Your task to perform on an android device: What is the news today? Image 0: 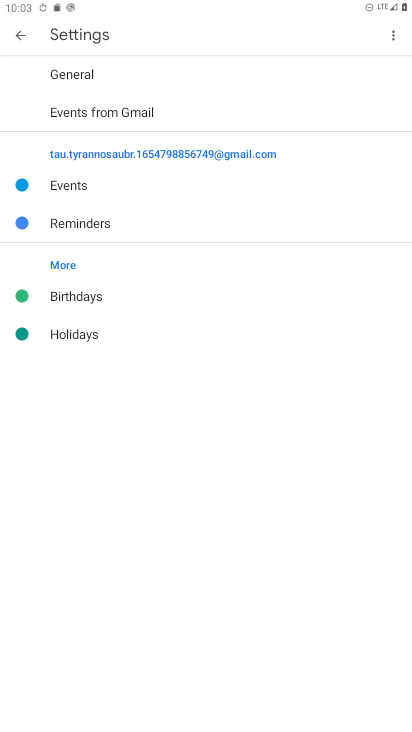
Step 0: press home button
Your task to perform on an android device: What is the news today? Image 1: 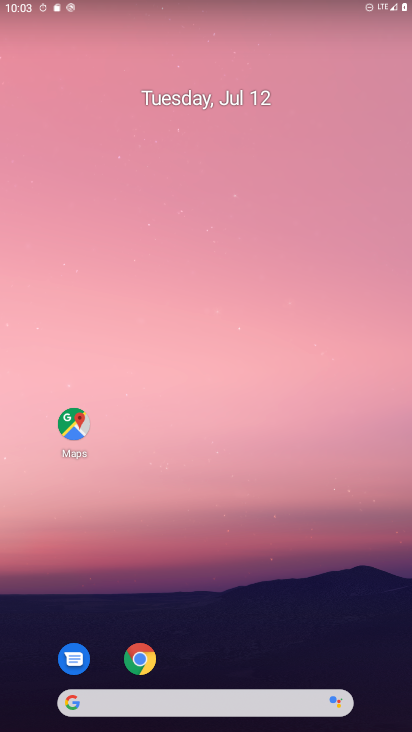
Step 1: drag from (389, 670) to (265, 53)
Your task to perform on an android device: What is the news today? Image 2: 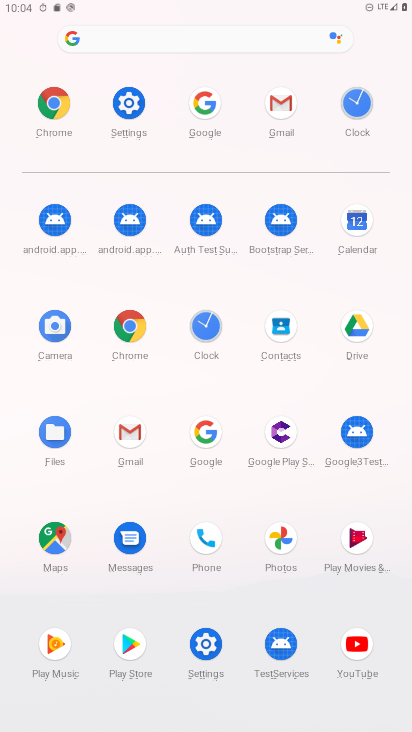
Step 2: click (194, 434)
Your task to perform on an android device: What is the news today? Image 3: 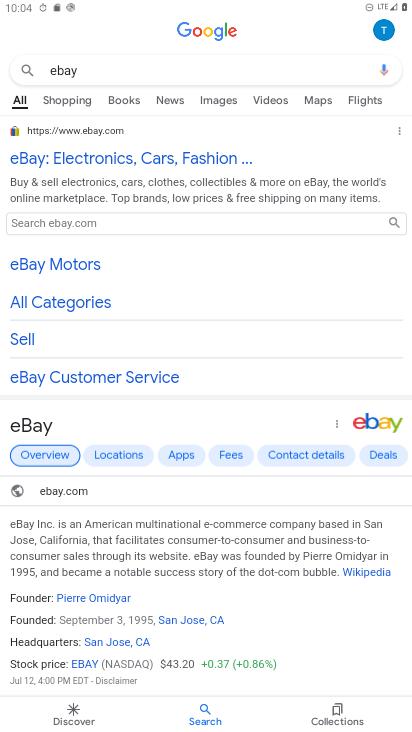
Step 3: press back button
Your task to perform on an android device: What is the news today? Image 4: 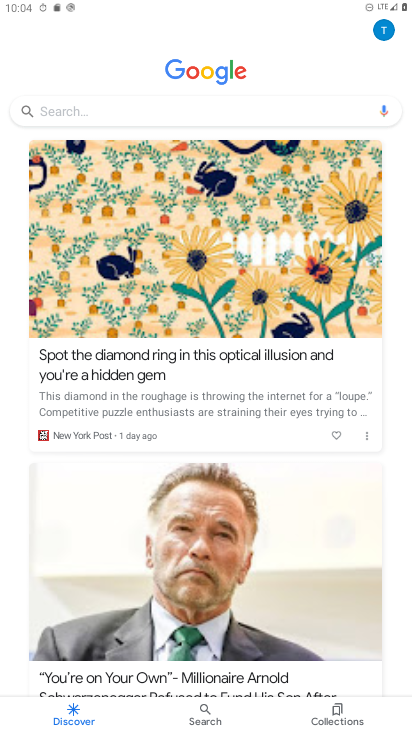
Step 4: click (163, 108)
Your task to perform on an android device: What is the news today? Image 5: 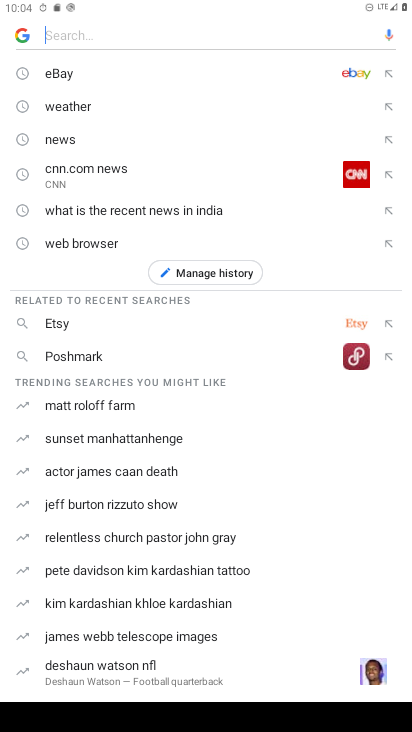
Step 5: type "What is the news today?"
Your task to perform on an android device: What is the news today? Image 6: 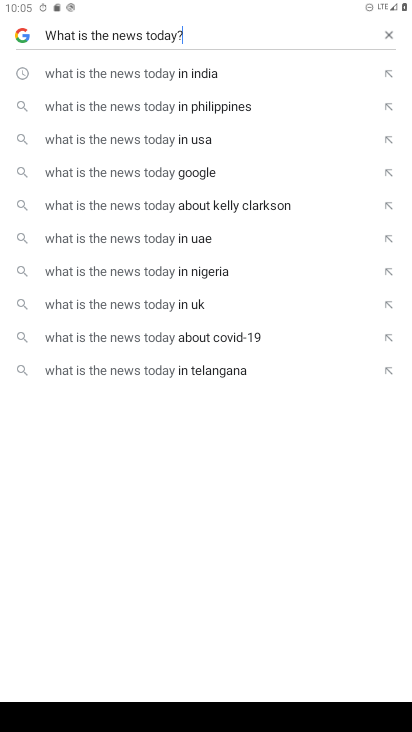
Step 6: click (221, 74)
Your task to perform on an android device: What is the news today? Image 7: 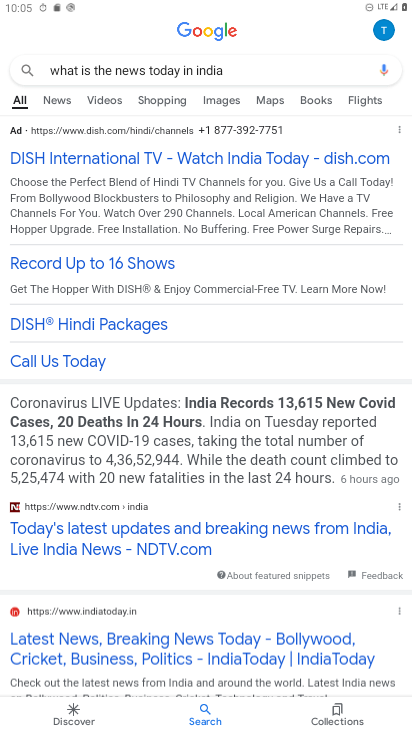
Step 7: task complete